Your task to perform on an android device: Is it going to rain this weekend? Image 0: 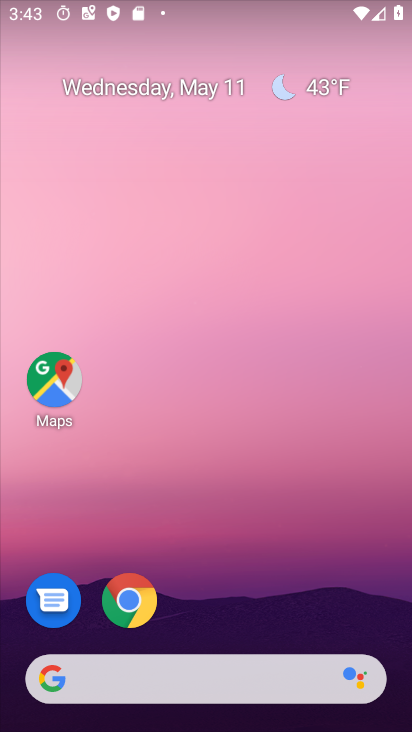
Step 0: drag from (333, 676) to (154, 57)
Your task to perform on an android device: Is it going to rain this weekend? Image 1: 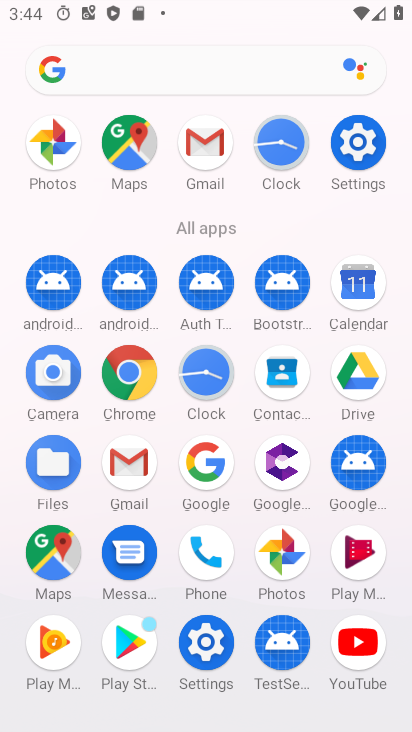
Step 1: press home button
Your task to perform on an android device: Is it going to rain this weekend? Image 2: 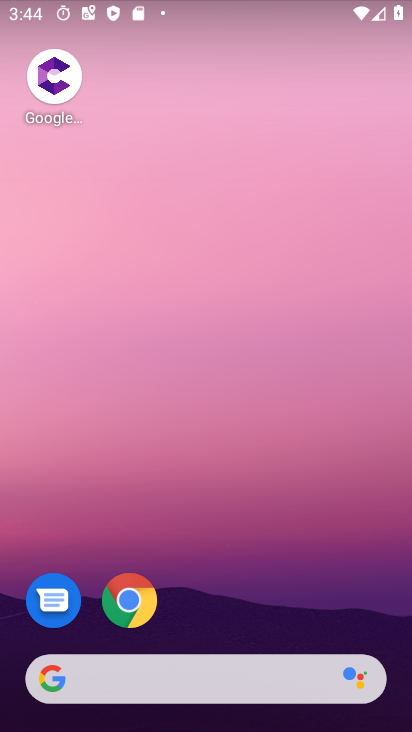
Step 2: drag from (41, 194) to (400, 409)
Your task to perform on an android device: Is it going to rain this weekend? Image 3: 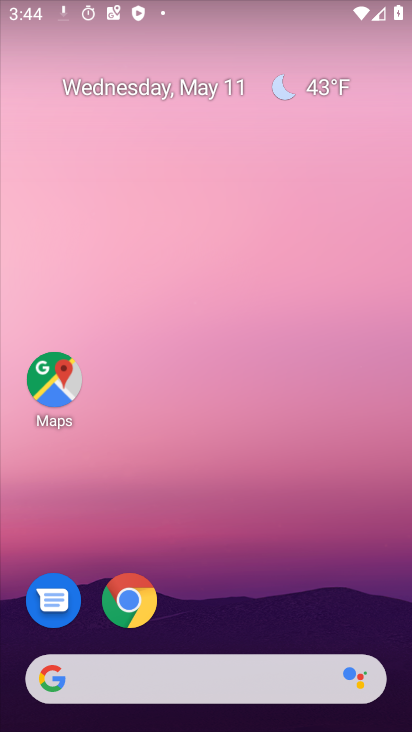
Step 3: click (297, 85)
Your task to perform on an android device: Is it going to rain this weekend? Image 4: 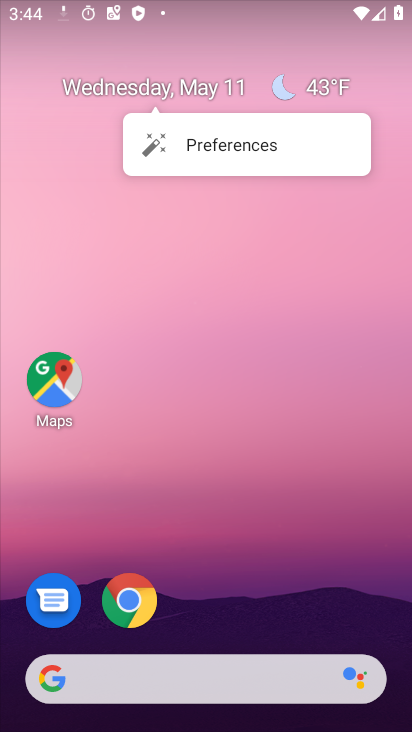
Step 4: click (291, 87)
Your task to perform on an android device: Is it going to rain this weekend? Image 5: 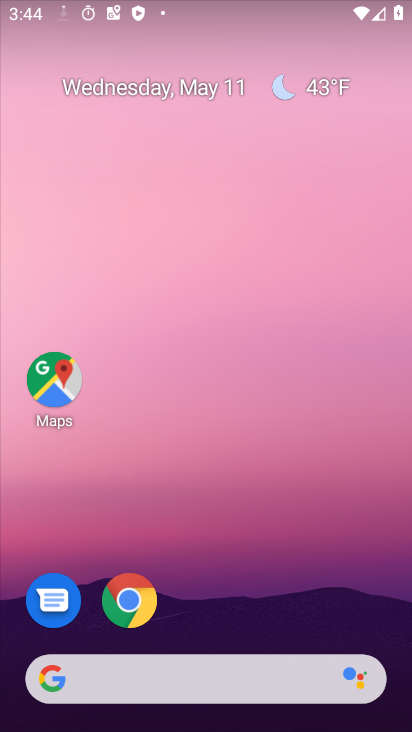
Step 5: click (289, 79)
Your task to perform on an android device: Is it going to rain this weekend? Image 6: 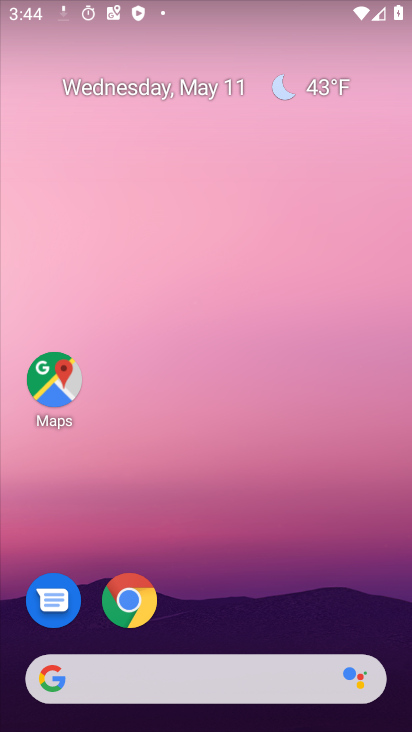
Step 6: click (288, 83)
Your task to perform on an android device: Is it going to rain this weekend? Image 7: 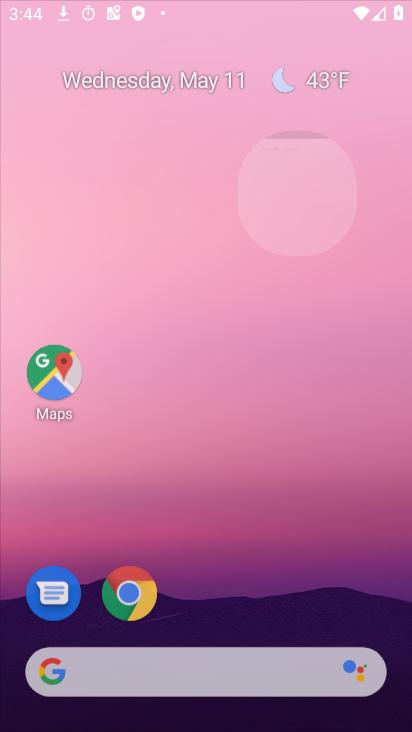
Step 7: click (285, 80)
Your task to perform on an android device: Is it going to rain this weekend? Image 8: 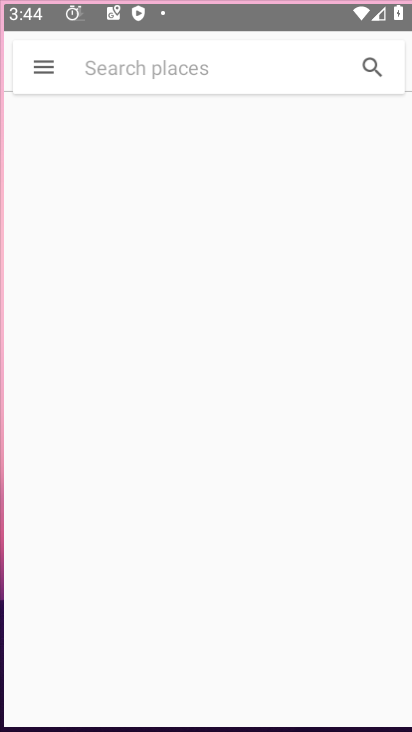
Step 8: click (284, 81)
Your task to perform on an android device: Is it going to rain this weekend? Image 9: 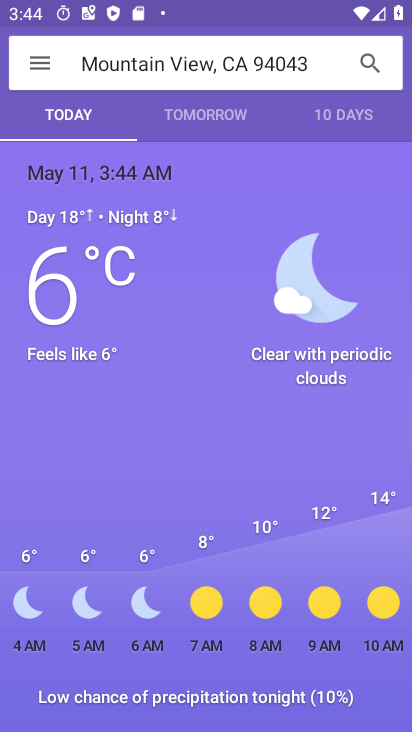
Step 9: task complete